Your task to perform on an android device: stop showing notifications on the lock screen Image 0: 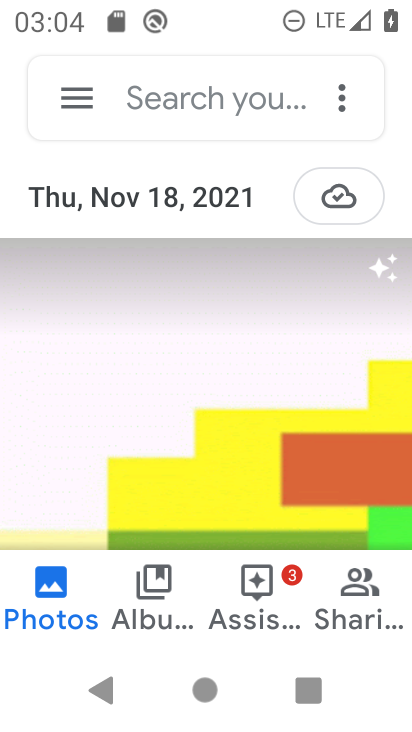
Step 0: press home button
Your task to perform on an android device: stop showing notifications on the lock screen Image 1: 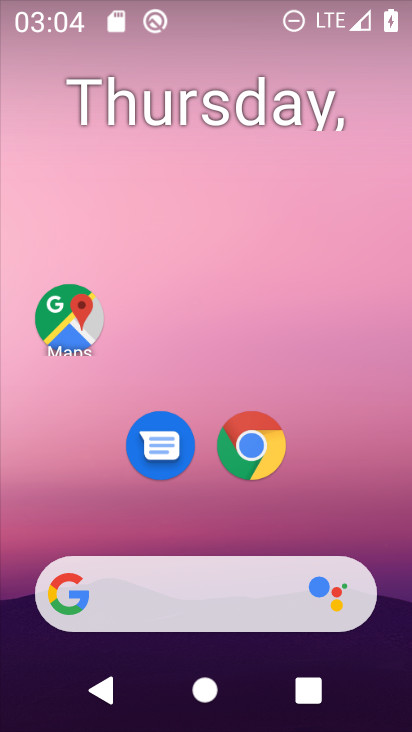
Step 1: drag from (16, 524) to (253, 153)
Your task to perform on an android device: stop showing notifications on the lock screen Image 2: 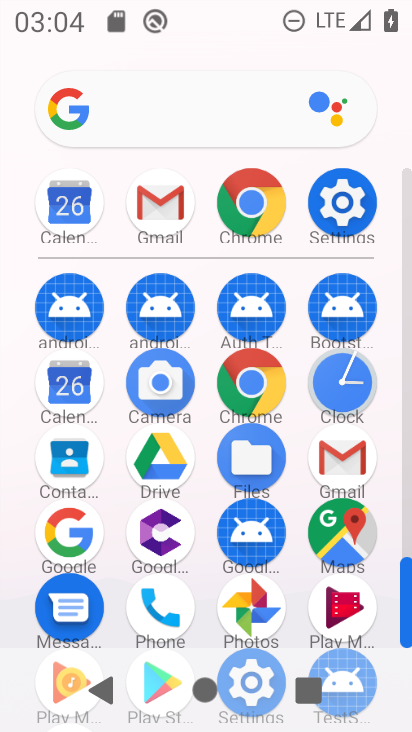
Step 2: click (324, 193)
Your task to perform on an android device: stop showing notifications on the lock screen Image 3: 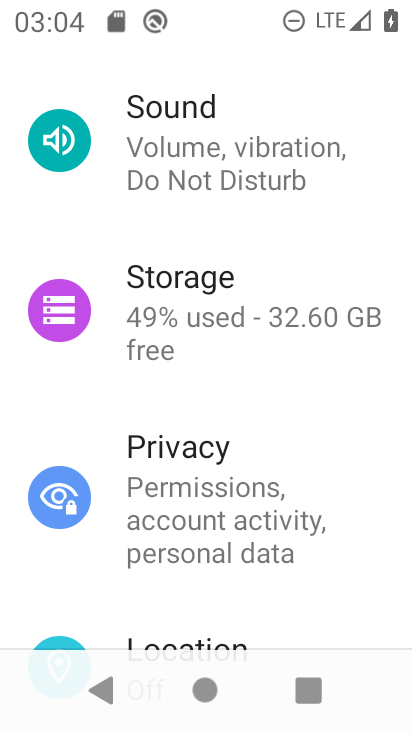
Step 3: drag from (208, 192) to (182, 659)
Your task to perform on an android device: stop showing notifications on the lock screen Image 4: 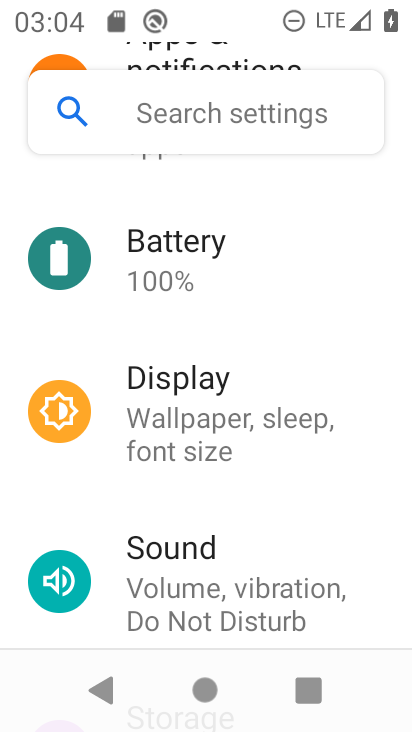
Step 4: drag from (158, 185) to (158, 597)
Your task to perform on an android device: stop showing notifications on the lock screen Image 5: 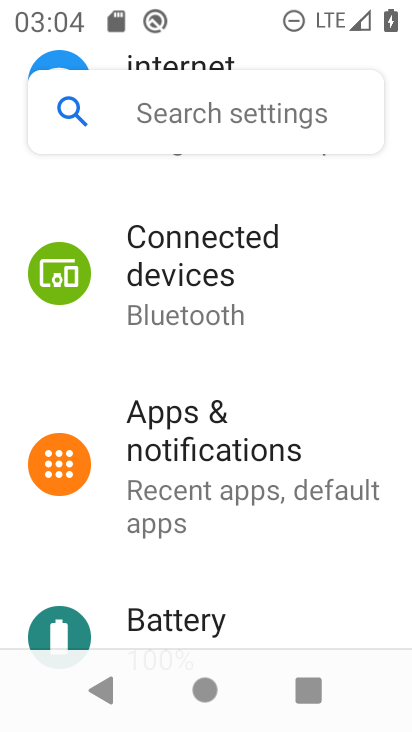
Step 5: click (190, 461)
Your task to perform on an android device: stop showing notifications on the lock screen Image 6: 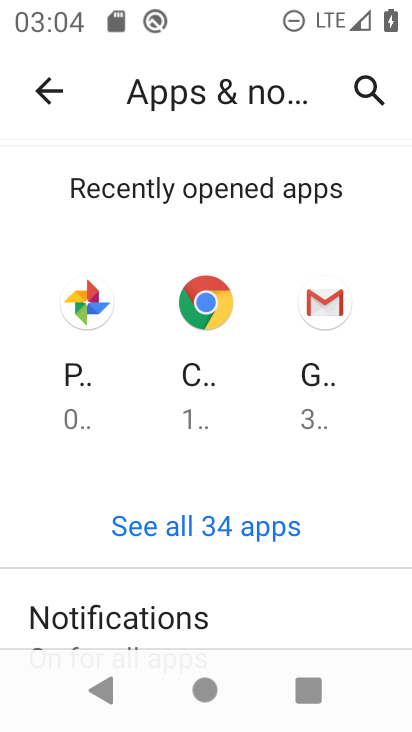
Step 6: drag from (13, 439) to (176, 118)
Your task to perform on an android device: stop showing notifications on the lock screen Image 7: 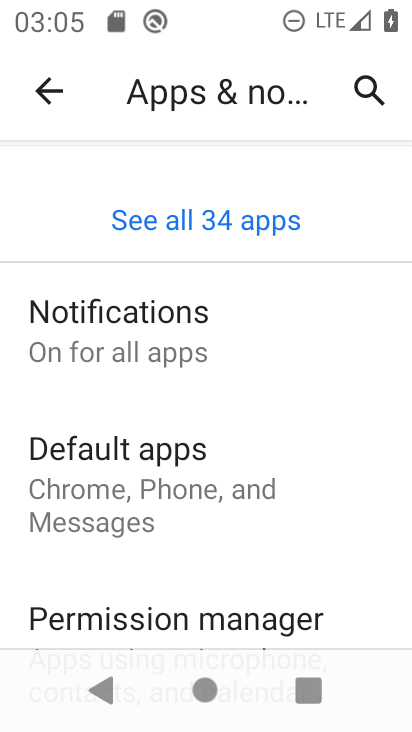
Step 7: click (233, 335)
Your task to perform on an android device: stop showing notifications on the lock screen Image 8: 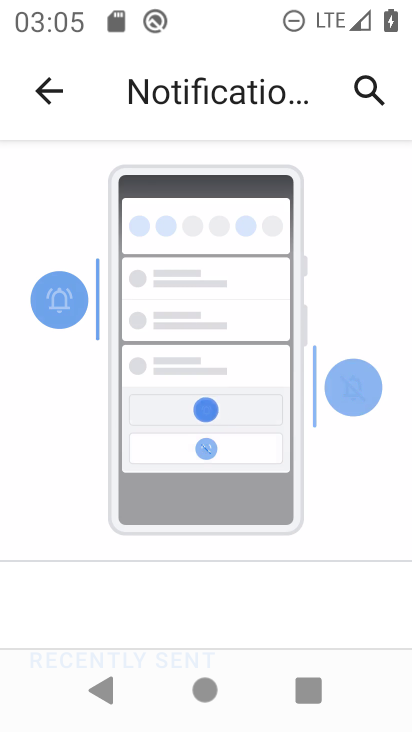
Step 8: drag from (6, 439) to (118, 127)
Your task to perform on an android device: stop showing notifications on the lock screen Image 9: 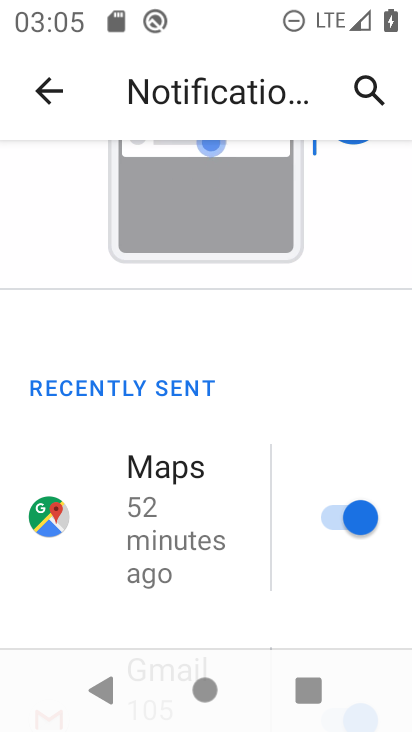
Step 9: drag from (4, 532) to (159, 239)
Your task to perform on an android device: stop showing notifications on the lock screen Image 10: 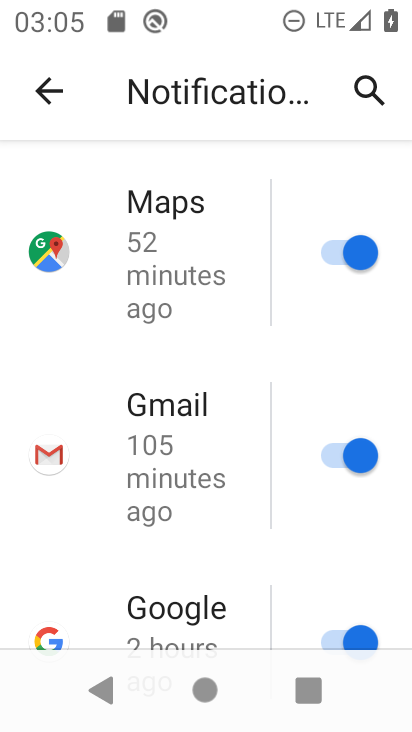
Step 10: drag from (4, 451) to (156, 158)
Your task to perform on an android device: stop showing notifications on the lock screen Image 11: 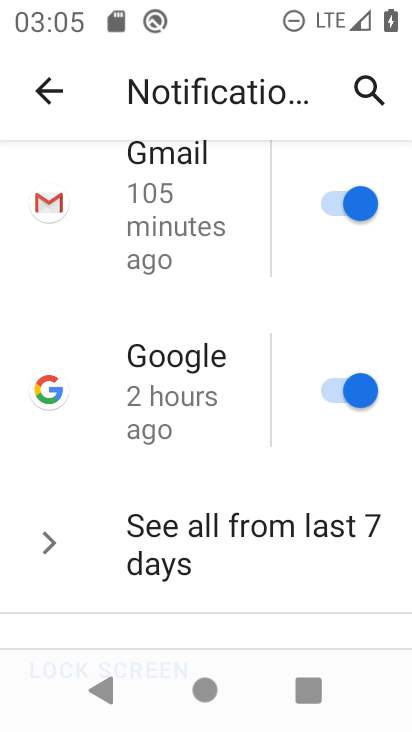
Step 11: drag from (49, 492) to (273, 144)
Your task to perform on an android device: stop showing notifications on the lock screen Image 12: 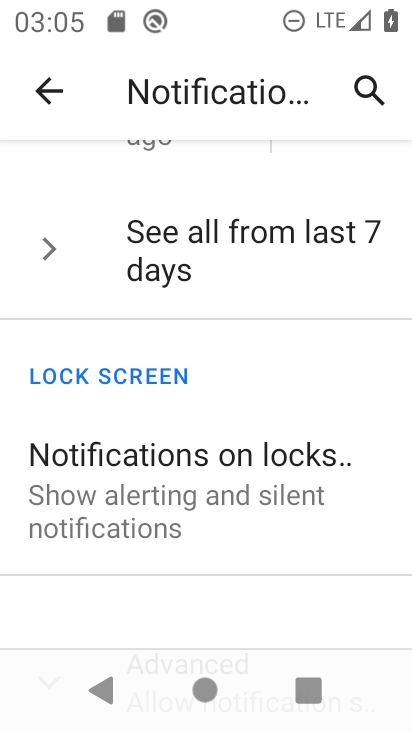
Step 12: drag from (14, 570) to (276, 144)
Your task to perform on an android device: stop showing notifications on the lock screen Image 13: 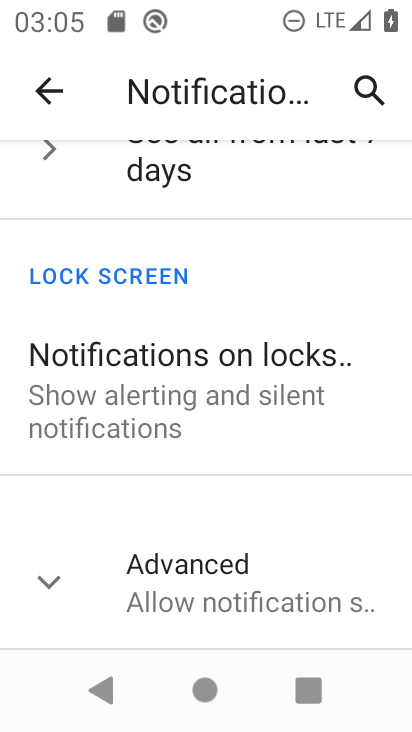
Step 13: click (195, 353)
Your task to perform on an android device: stop showing notifications on the lock screen Image 14: 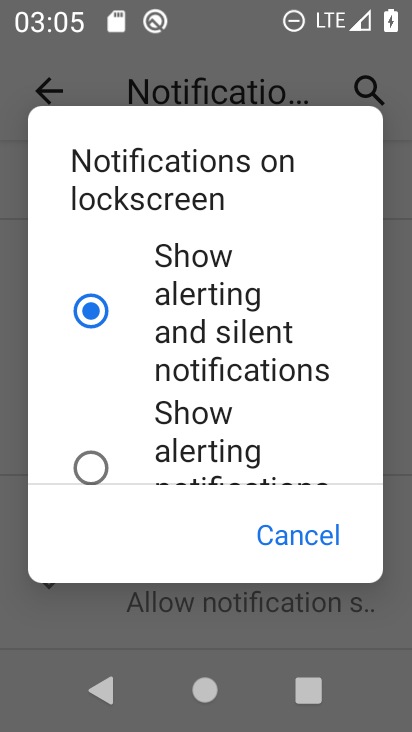
Step 14: drag from (14, 464) to (282, 169)
Your task to perform on an android device: stop showing notifications on the lock screen Image 15: 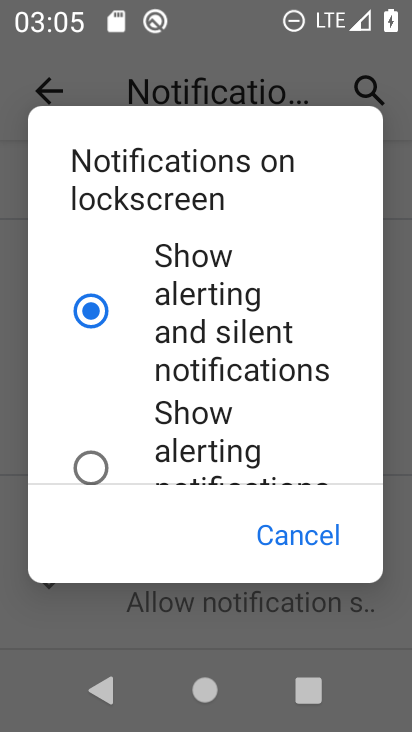
Step 15: drag from (119, 450) to (241, 147)
Your task to perform on an android device: stop showing notifications on the lock screen Image 16: 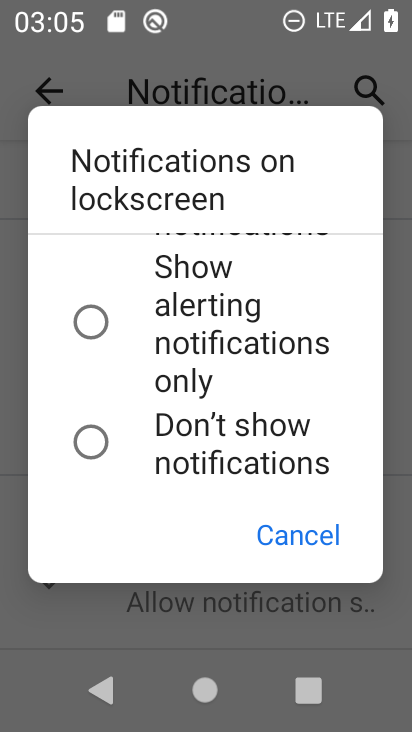
Step 16: click (90, 450)
Your task to perform on an android device: stop showing notifications on the lock screen Image 17: 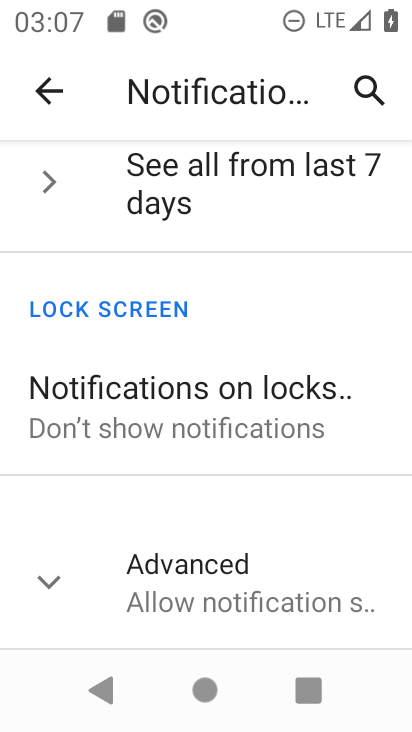
Step 17: task complete